Your task to perform on an android device: Open Youtube and go to "Your channel" Image 0: 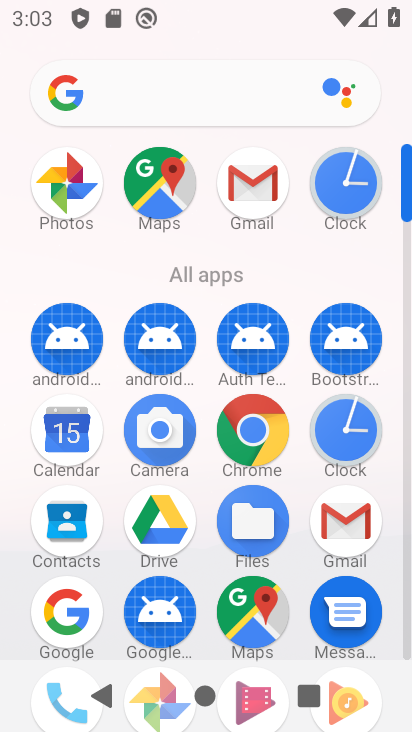
Step 0: drag from (271, 431) to (299, 69)
Your task to perform on an android device: Open Youtube and go to "Your channel" Image 1: 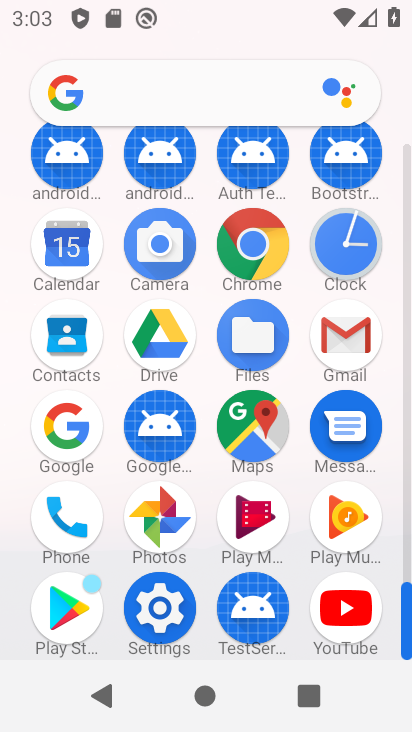
Step 1: click (337, 599)
Your task to perform on an android device: Open Youtube and go to "Your channel" Image 2: 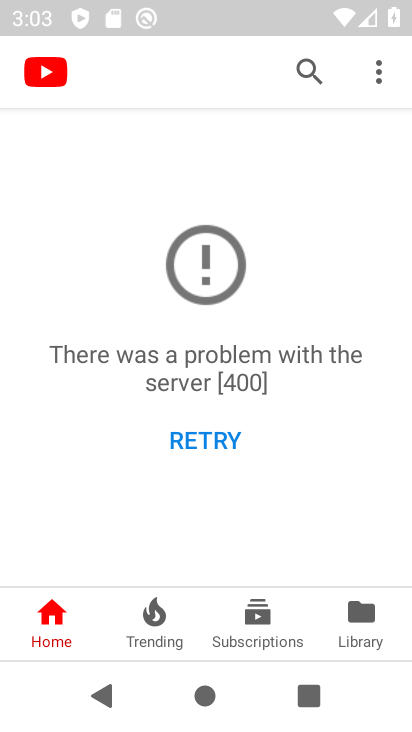
Step 2: click (376, 89)
Your task to perform on an android device: Open Youtube and go to "Your channel" Image 3: 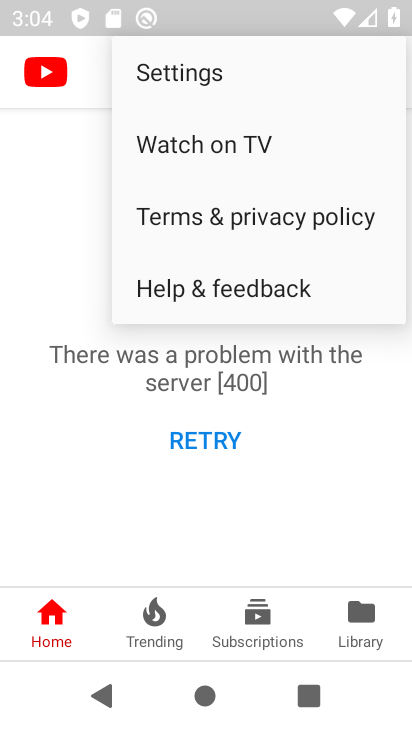
Step 3: click (224, 80)
Your task to perform on an android device: Open Youtube and go to "Your channel" Image 4: 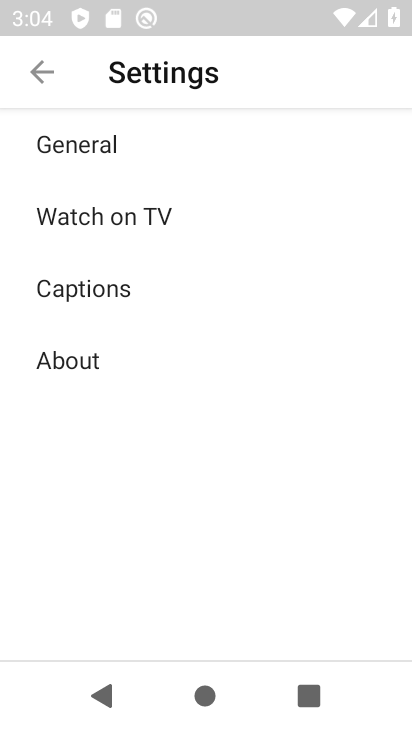
Step 4: task complete